Your task to perform on an android device: change your default location settings in chrome Image 0: 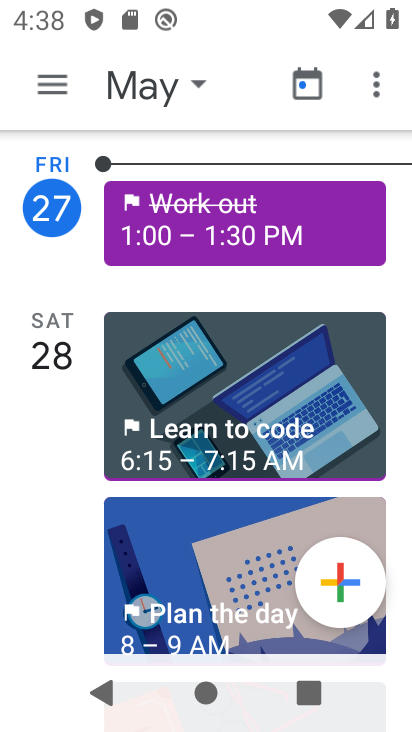
Step 0: press home button
Your task to perform on an android device: change your default location settings in chrome Image 1: 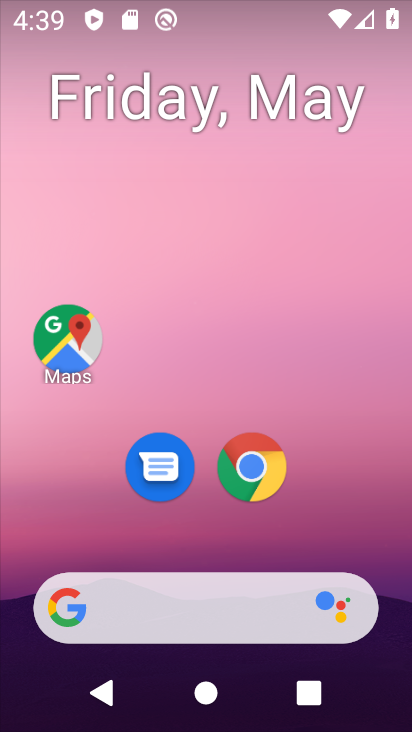
Step 1: click (246, 458)
Your task to perform on an android device: change your default location settings in chrome Image 2: 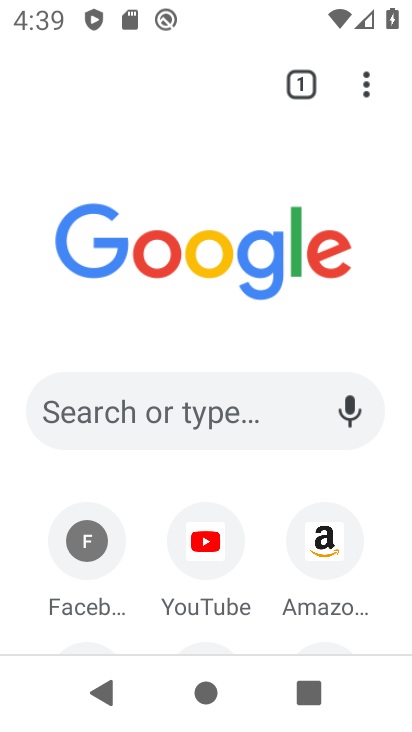
Step 2: click (384, 84)
Your task to perform on an android device: change your default location settings in chrome Image 3: 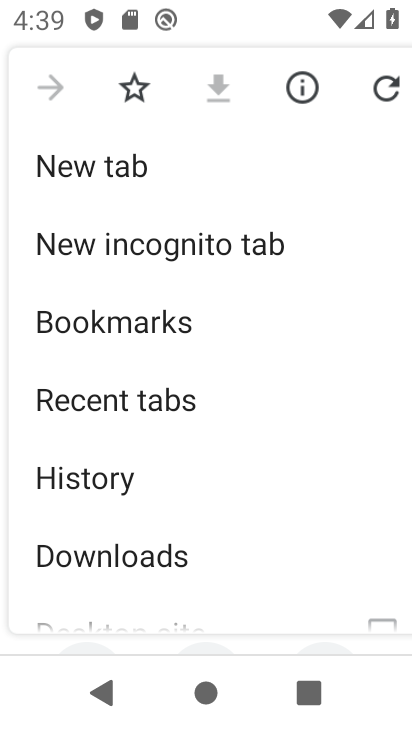
Step 3: drag from (161, 532) to (188, 222)
Your task to perform on an android device: change your default location settings in chrome Image 4: 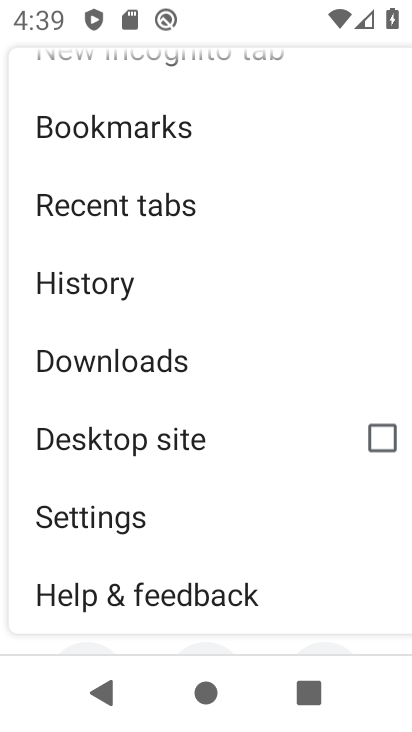
Step 4: click (99, 515)
Your task to perform on an android device: change your default location settings in chrome Image 5: 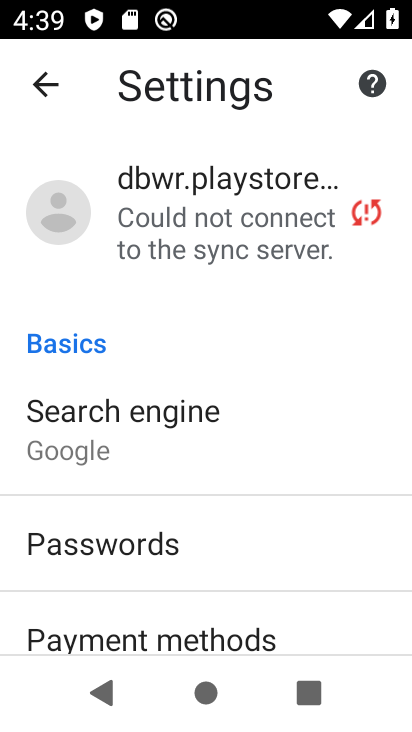
Step 5: drag from (159, 529) to (231, 246)
Your task to perform on an android device: change your default location settings in chrome Image 6: 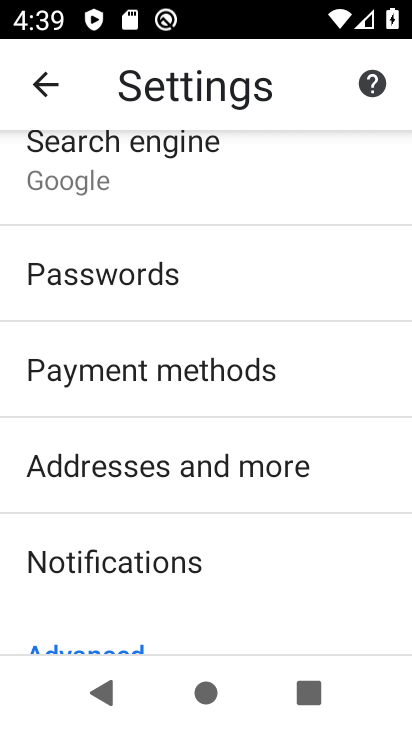
Step 6: drag from (244, 581) to (279, 159)
Your task to perform on an android device: change your default location settings in chrome Image 7: 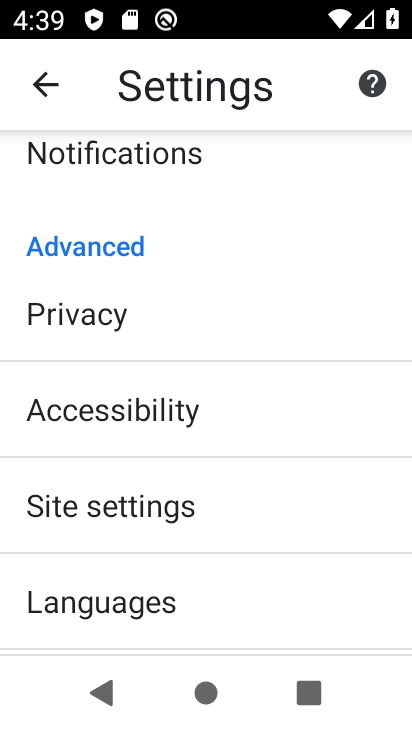
Step 7: click (149, 500)
Your task to perform on an android device: change your default location settings in chrome Image 8: 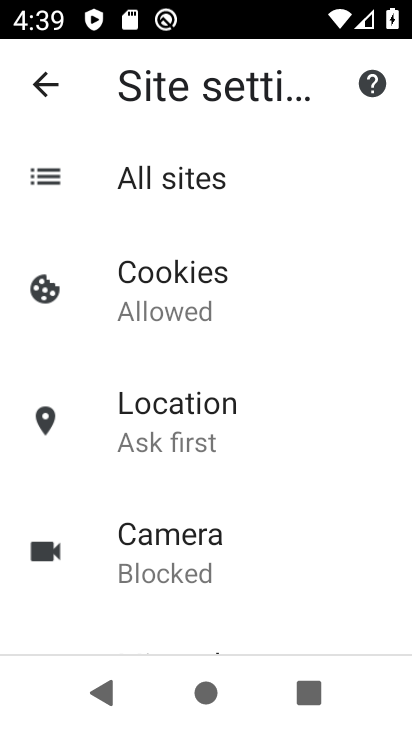
Step 8: click (179, 407)
Your task to perform on an android device: change your default location settings in chrome Image 9: 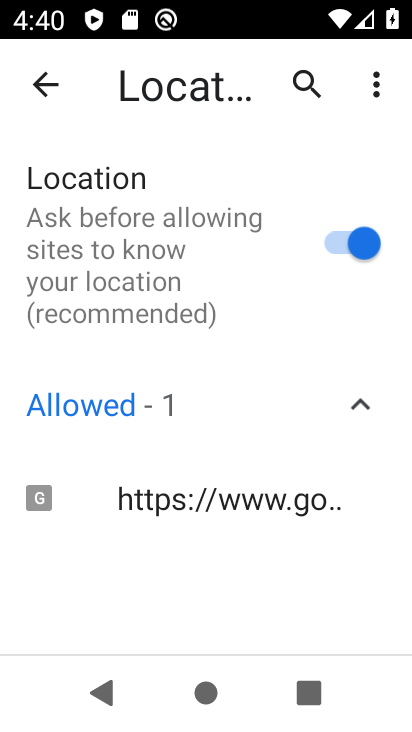
Step 9: click (333, 241)
Your task to perform on an android device: change your default location settings in chrome Image 10: 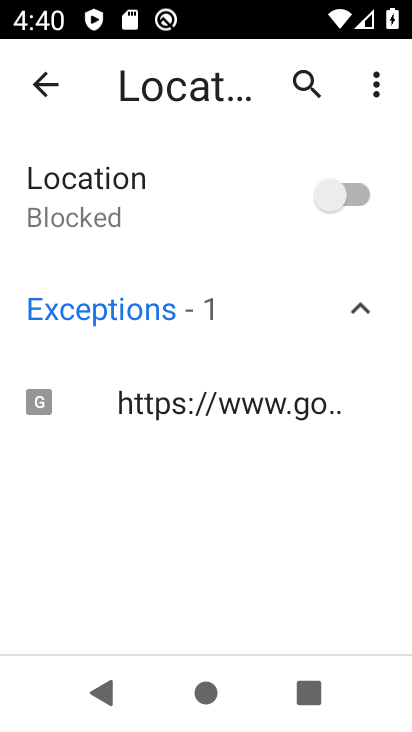
Step 10: task complete